Your task to perform on an android device: Open the stopwatch Image 0: 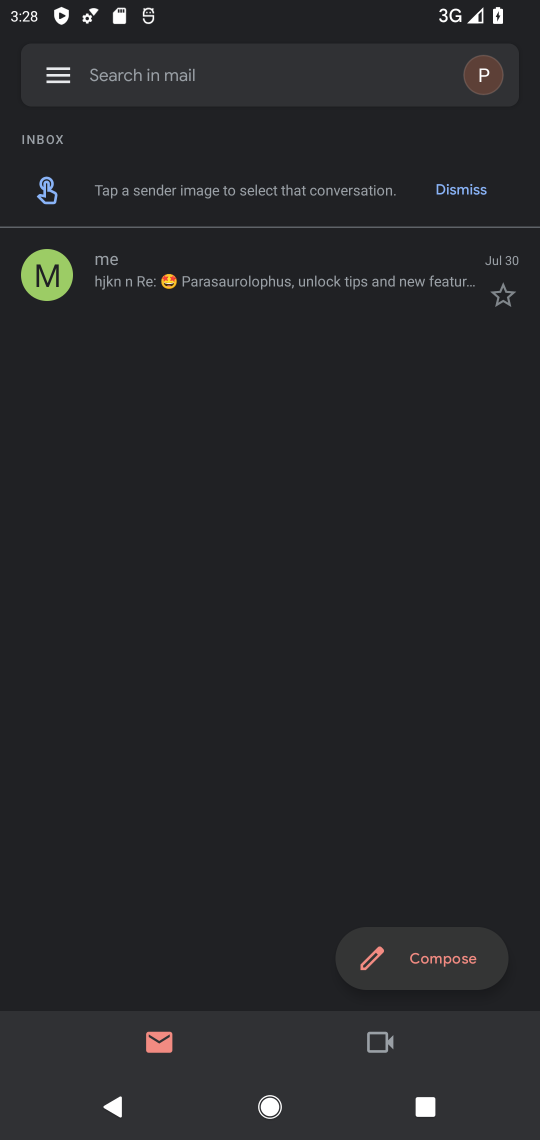
Step 0: press home button
Your task to perform on an android device: Open the stopwatch Image 1: 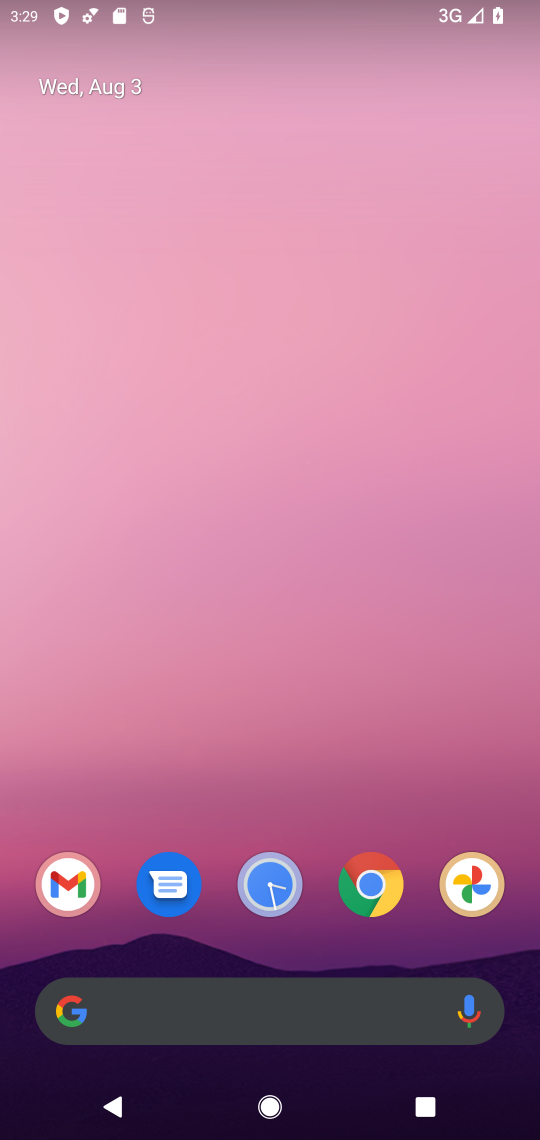
Step 1: drag from (297, 950) to (372, 118)
Your task to perform on an android device: Open the stopwatch Image 2: 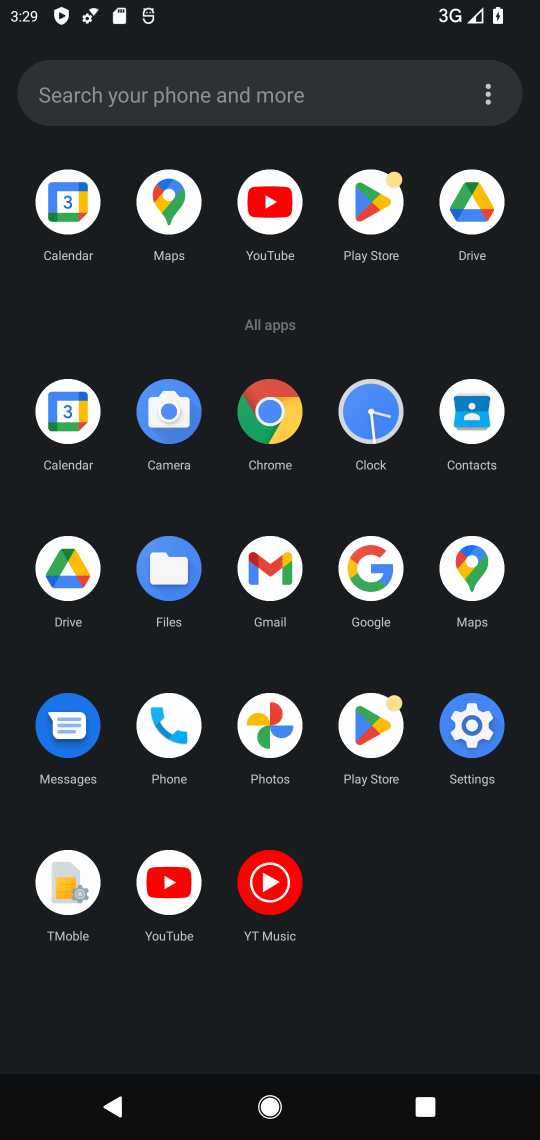
Step 2: click (450, 762)
Your task to perform on an android device: Open the stopwatch Image 3: 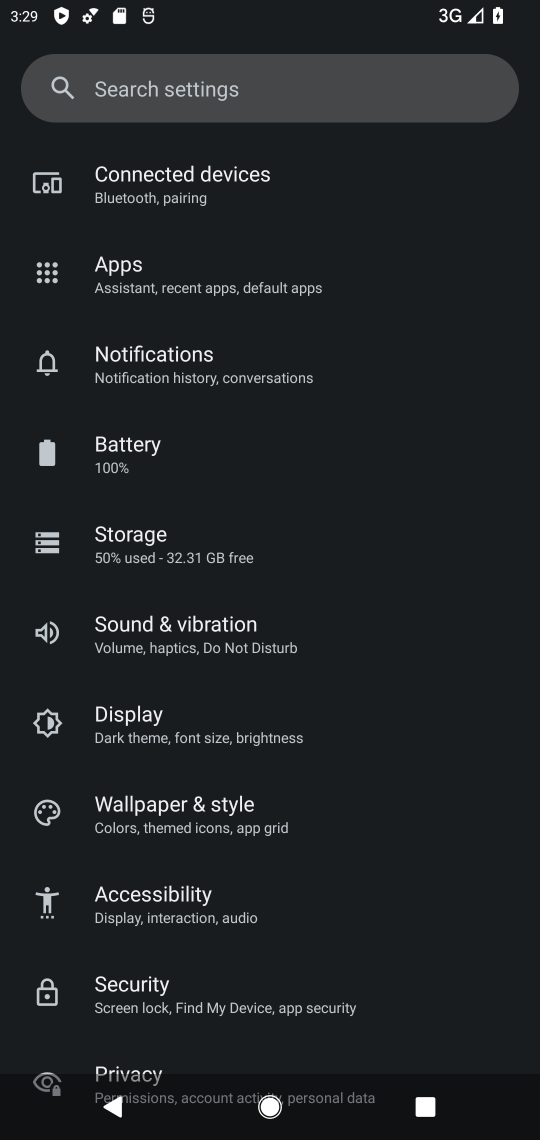
Step 3: task complete